Your task to perform on an android device: toggle data saver in the chrome app Image 0: 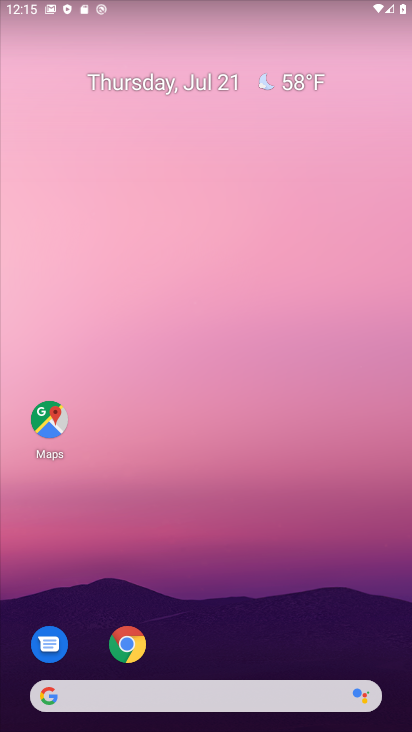
Step 0: click (120, 638)
Your task to perform on an android device: toggle data saver in the chrome app Image 1: 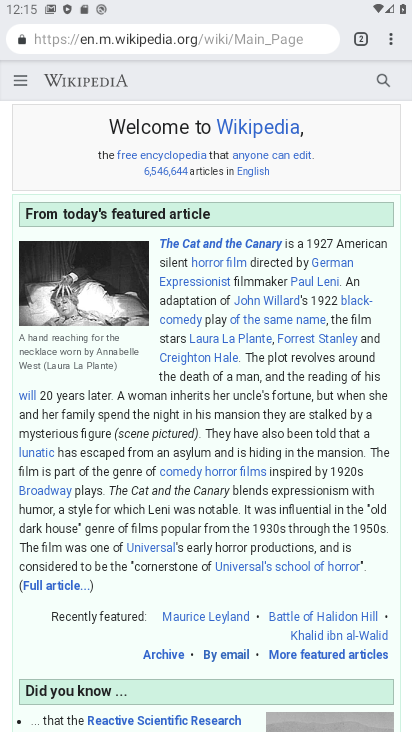
Step 1: click (394, 36)
Your task to perform on an android device: toggle data saver in the chrome app Image 2: 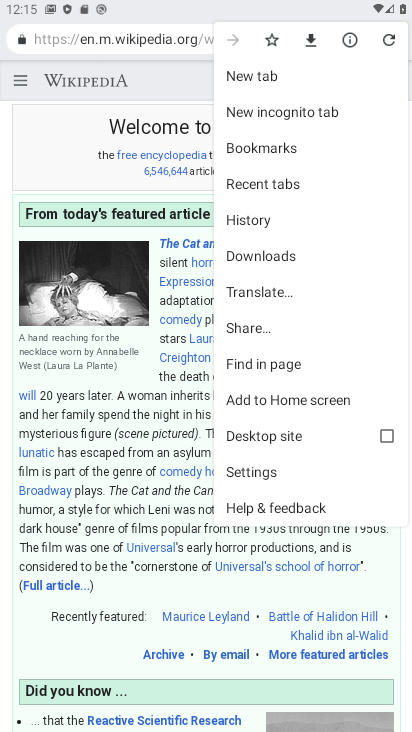
Step 2: click (236, 468)
Your task to perform on an android device: toggle data saver in the chrome app Image 3: 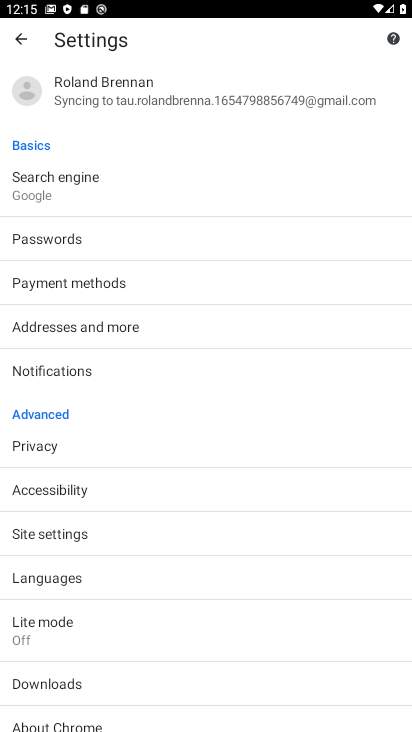
Step 3: click (43, 625)
Your task to perform on an android device: toggle data saver in the chrome app Image 4: 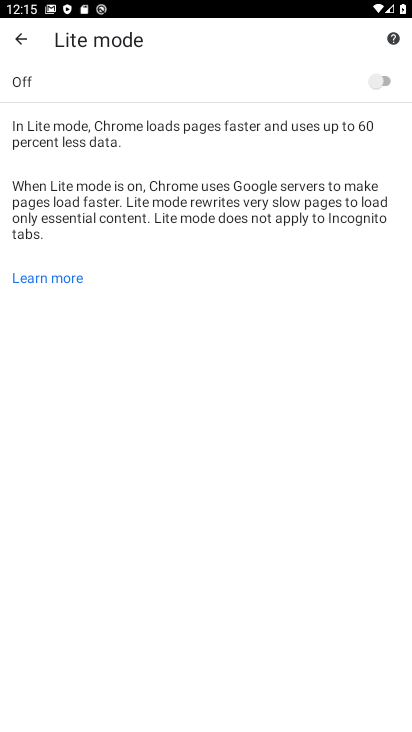
Step 4: click (374, 74)
Your task to perform on an android device: toggle data saver in the chrome app Image 5: 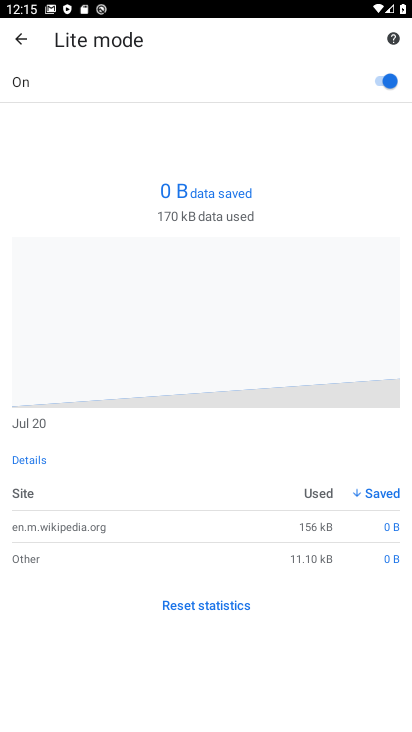
Step 5: task complete